Your task to perform on an android device: change your default location settings in chrome Image 0: 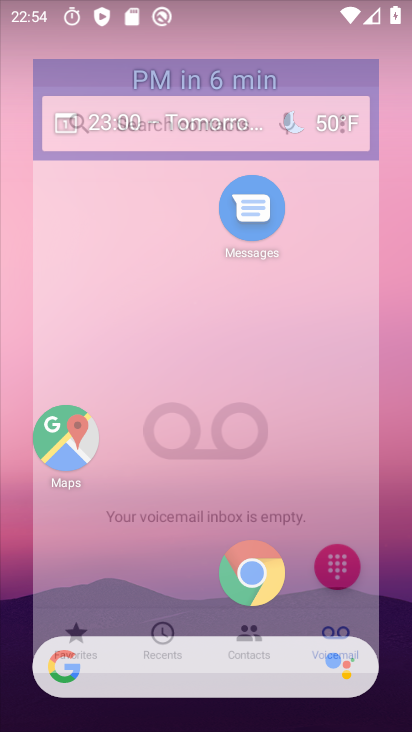
Step 0: drag from (166, 587) to (410, 85)
Your task to perform on an android device: change your default location settings in chrome Image 1: 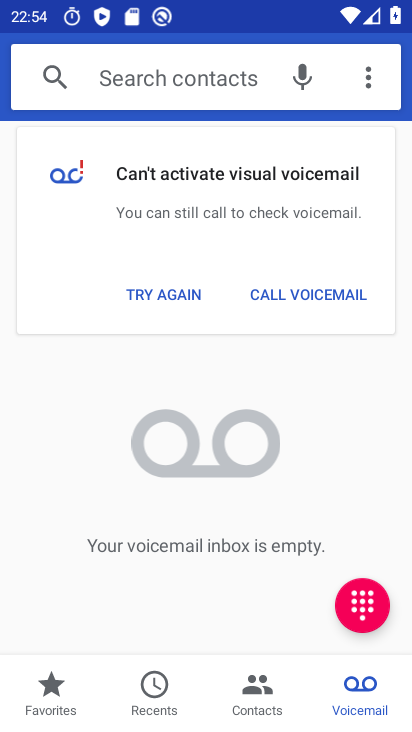
Step 1: press home button
Your task to perform on an android device: change your default location settings in chrome Image 2: 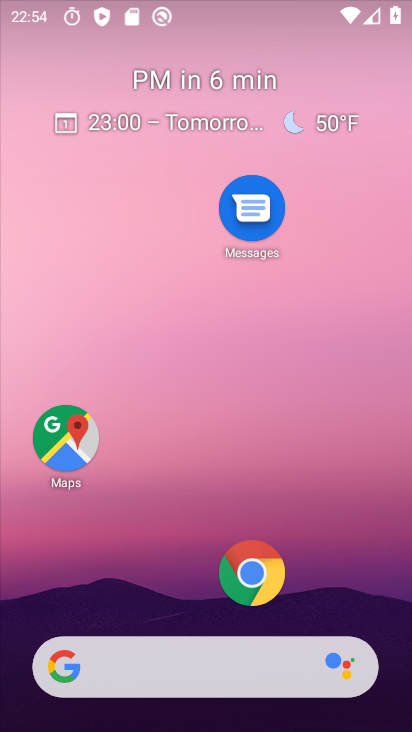
Step 2: click (256, 569)
Your task to perform on an android device: change your default location settings in chrome Image 3: 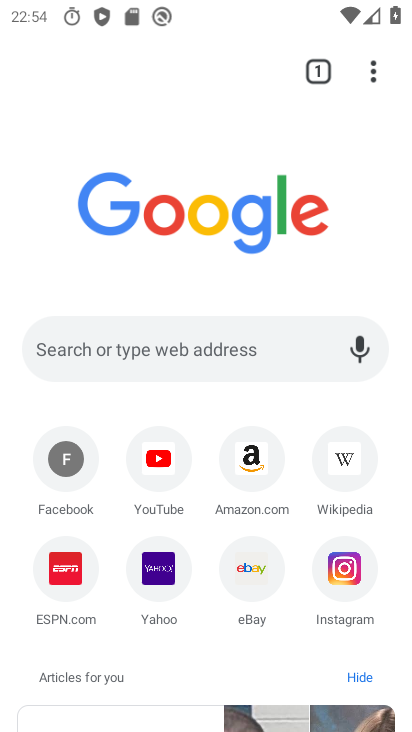
Step 3: click (368, 69)
Your task to perform on an android device: change your default location settings in chrome Image 4: 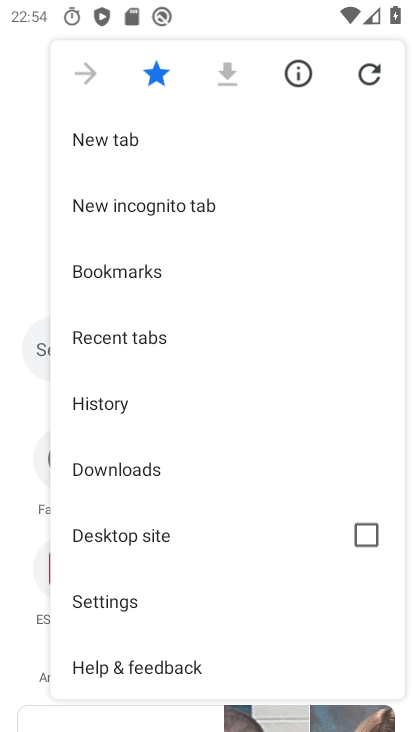
Step 4: click (149, 615)
Your task to perform on an android device: change your default location settings in chrome Image 5: 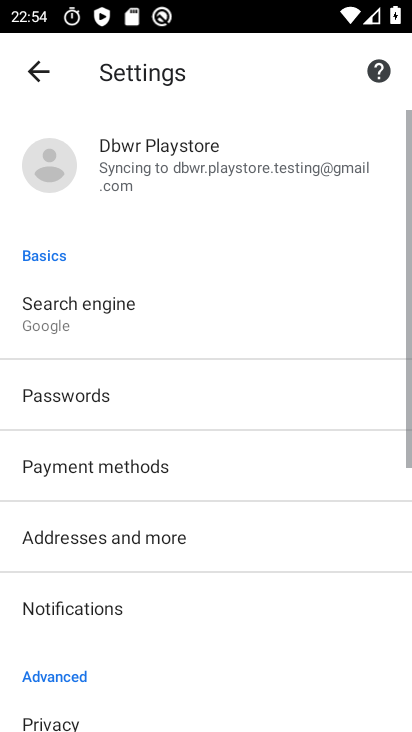
Step 5: click (110, 293)
Your task to perform on an android device: change your default location settings in chrome Image 6: 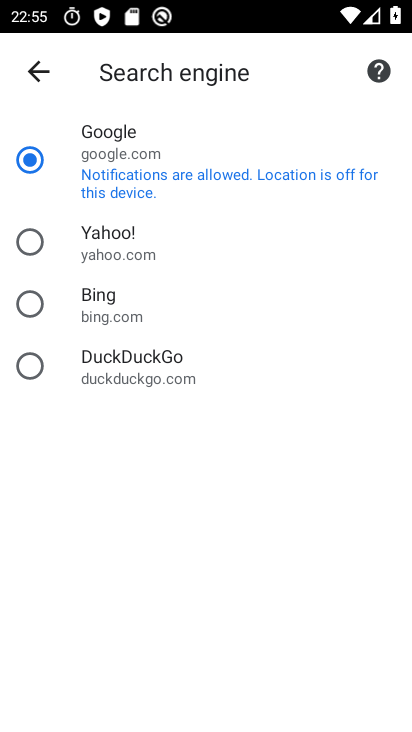
Step 6: task complete